Your task to perform on an android device: open a new tab in the chrome app Image 0: 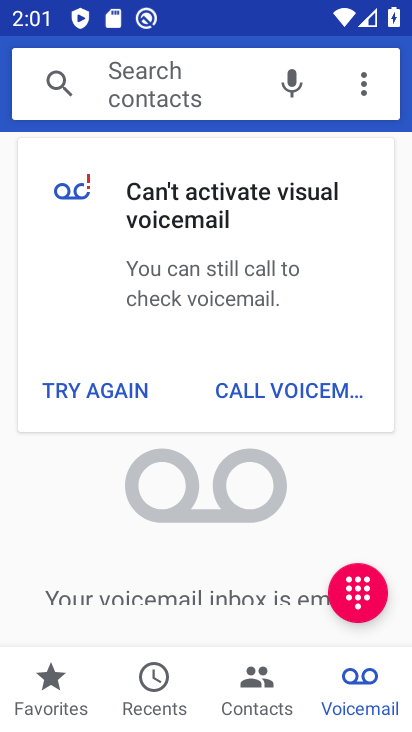
Step 0: press home button
Your task to perform on an android device: open a new tab in the chrome app Image 1: 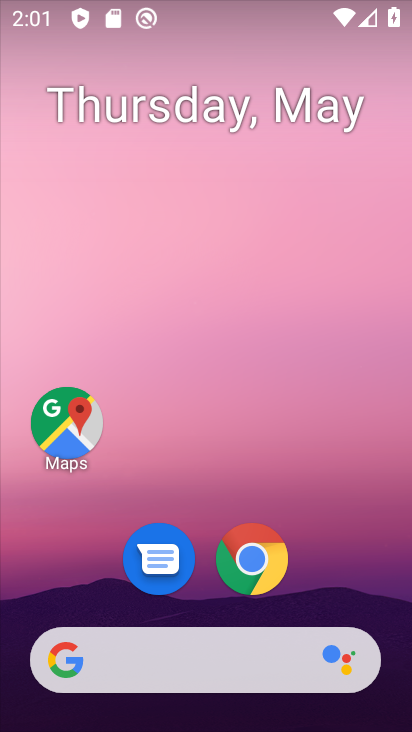
Step 1: click (250, 564)
Your task to perform on an android device: open a new tab in the chrome app Image 2: 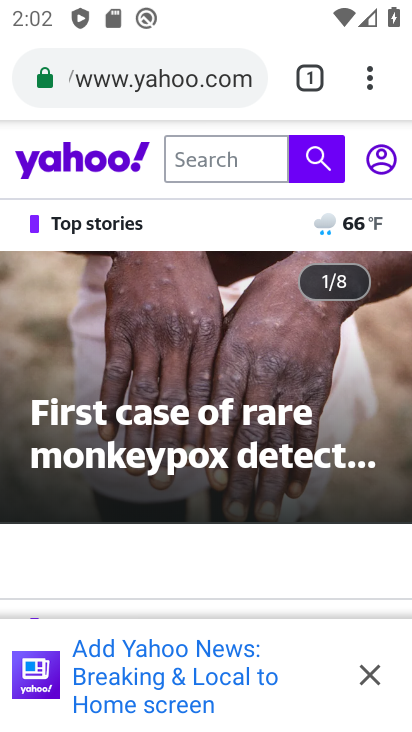
Step 2: click (320, 78)
Your task to perform on an android device: open a new tab in the chrome app Image 3: 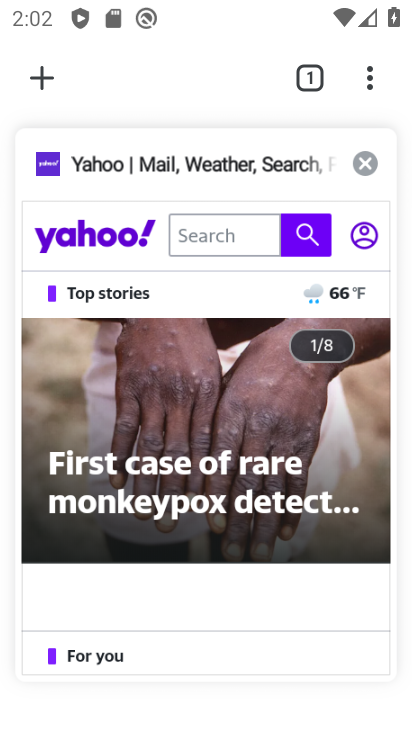
Step 3: click (30, 82)
Your task to perform on an android device: open a new tab in the chrome app Image 4: 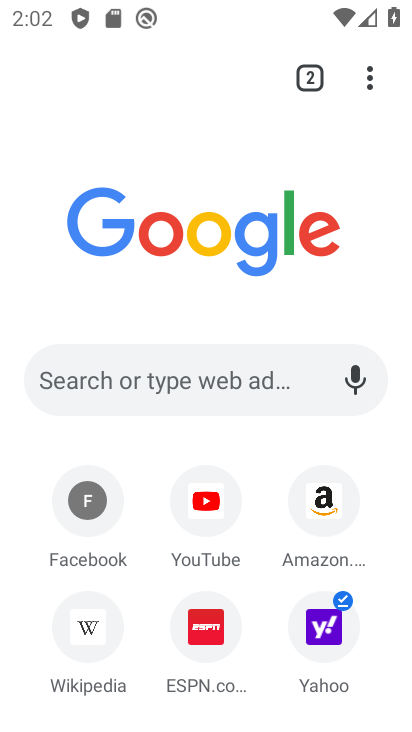
Step 4: task complete